Your task to perform on an android device: Open calendar and show me the first week of next month Image 0: 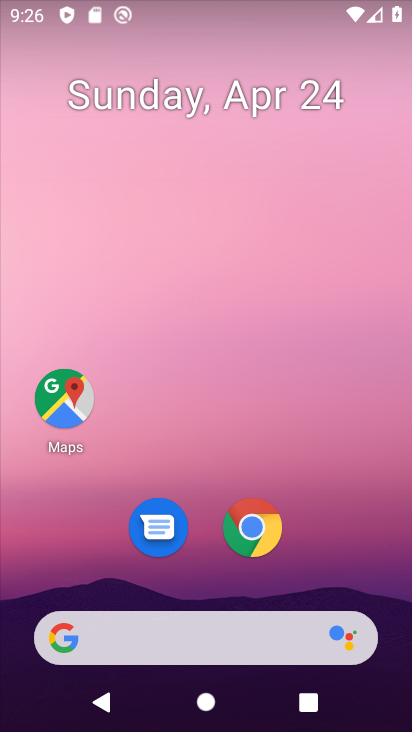
Step 0: drag from (215, 506) to (304, 13)
Your task to perform on an android device: Open calendar and show me the first week of next month Image 1: 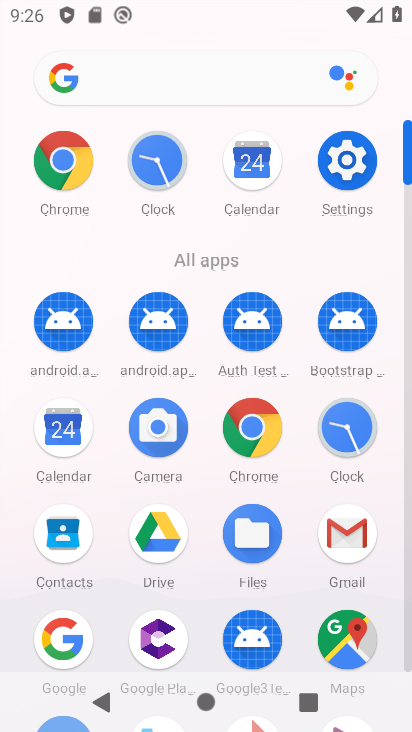
Step 1: click (58, 439)
Your task to perform on an android device: Open calendar and show me the first week of next month Image 2: 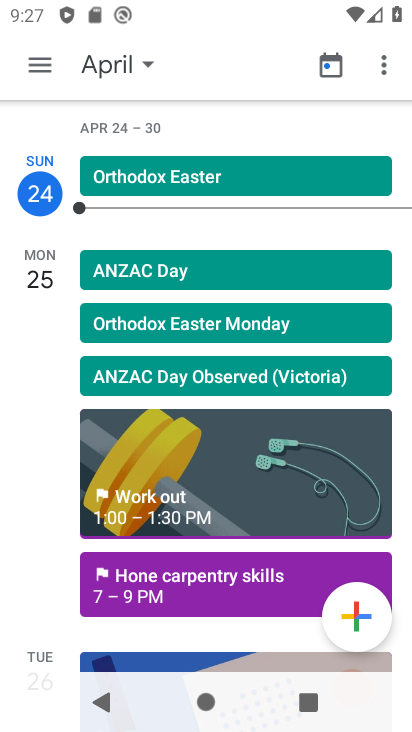
Step 2: click (141, 64)
Your task to perform on an android device: Open calendar and show me the first week of next month Image 3: 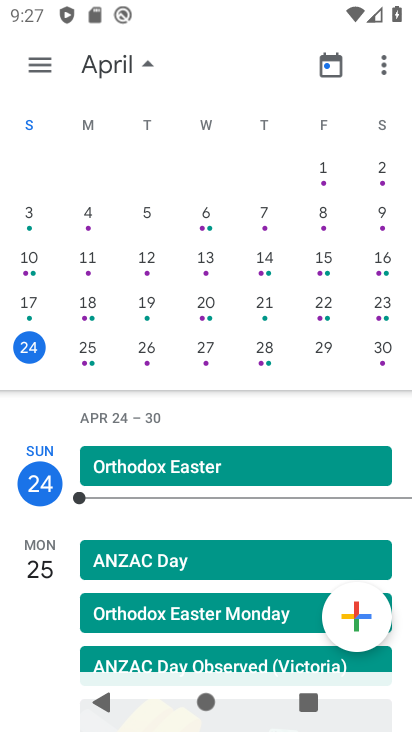
Step 3: drag from (396, 254) to (21, 238)
Your task to perform on an android device: Open calendar and show me the first week of next month Image 4: 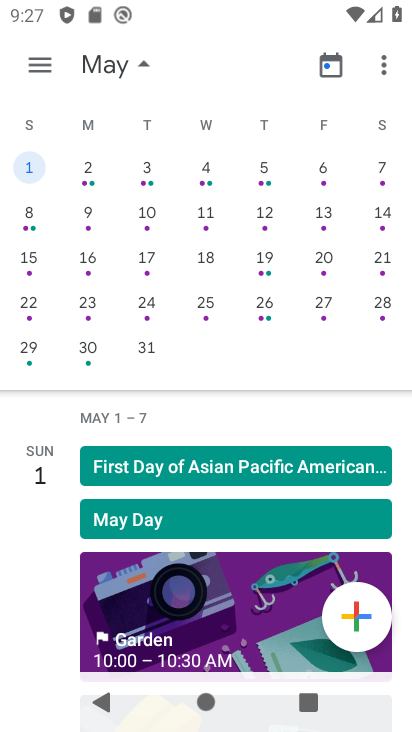
Step 4: click (84, 171)
Your task to perform on an android device: Open calendar and show me the first week of next month Image 5: 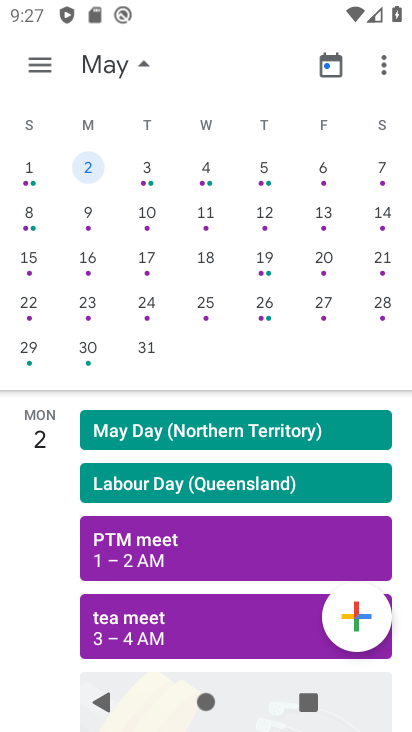
Step 5: task complete